Your task to perform on an android device: Check the news Image 0: 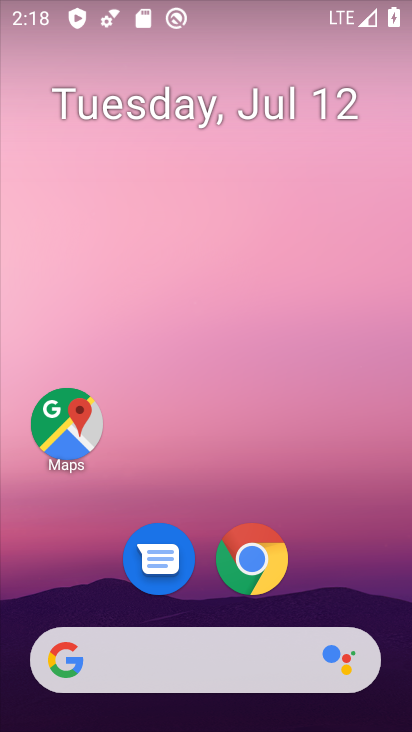
Step 0: drag from (2, 287) to (409, 392)
Your task to perform on an android device: Check the news Image 1: 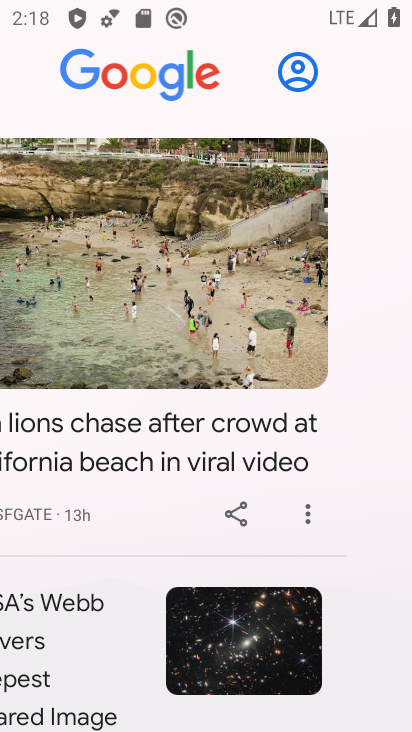
Step 1: task complete